Your task to perform on an android device: Open Maps and search for coffee Image 0: 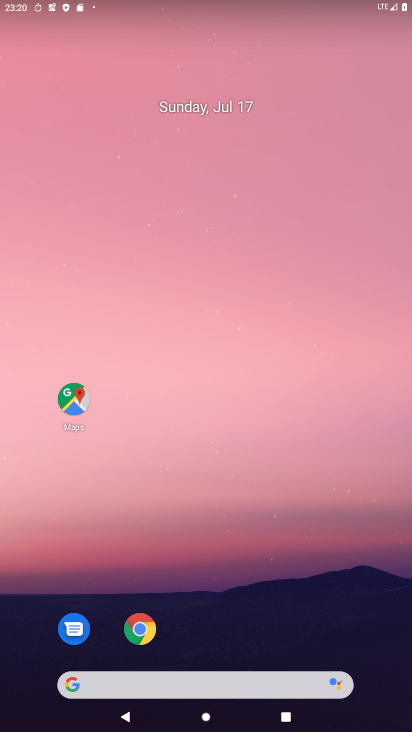
Step 0: drag from (231, 723) to (275, 219)
Your task to perform on an android device: Open Maps and search for coffee Image 1: 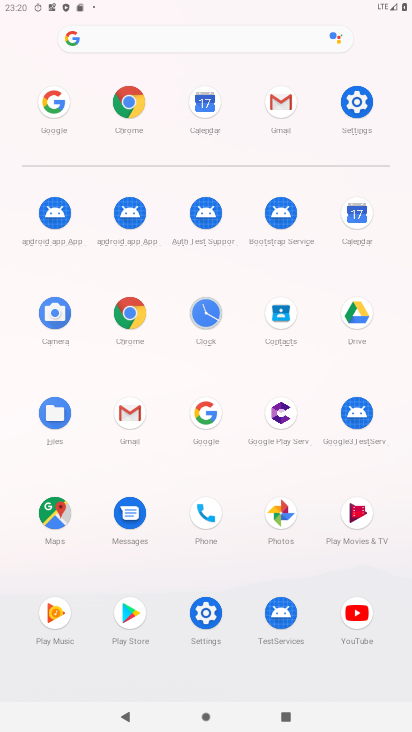
Step 1: click (57, 516)
Your task to perform on an android device: Open Maps and search for coffee Image 2: 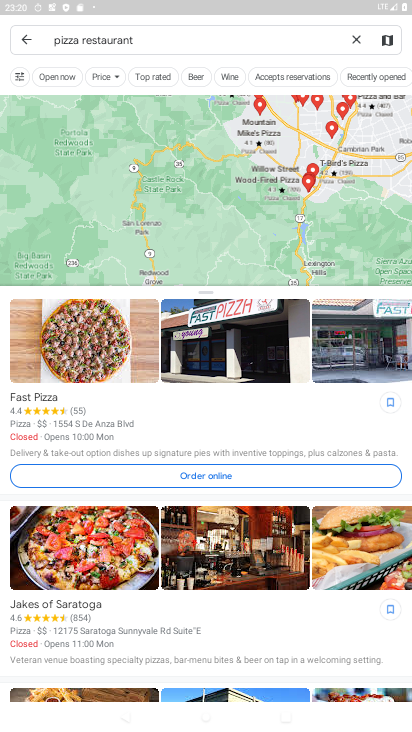
Step 2: click (355, 38)
Your task to perform on an android device: Open Maps and search for coffee Image 3: 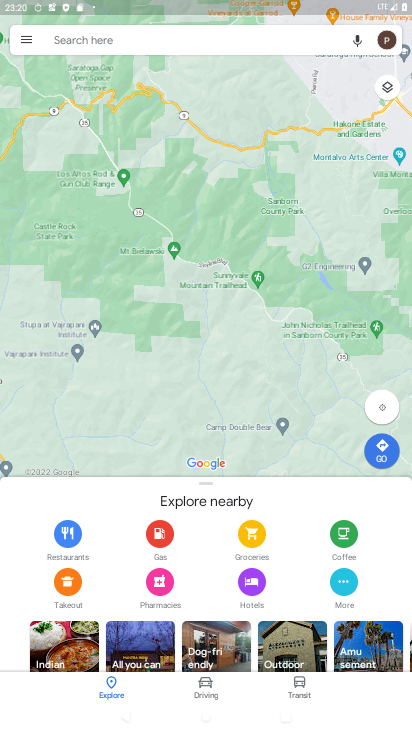
Step 3: click (146, 33)
Your task to perform on an android device: Open Maps and search for coffee Image 4: 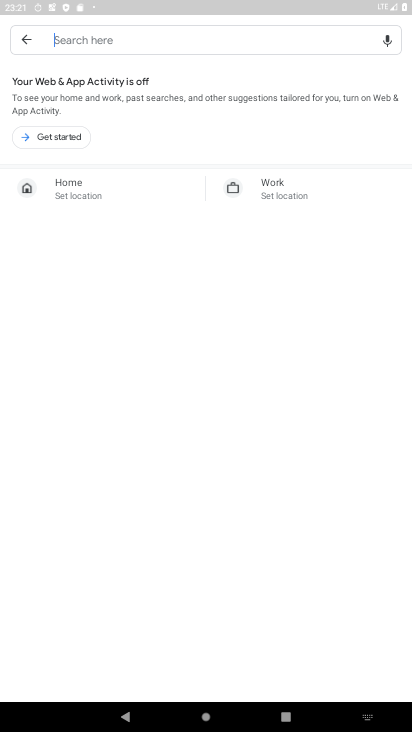
Step 4: type "coffee"
Your task to perform on an android device: Open Maps and search for coffee Image 5: 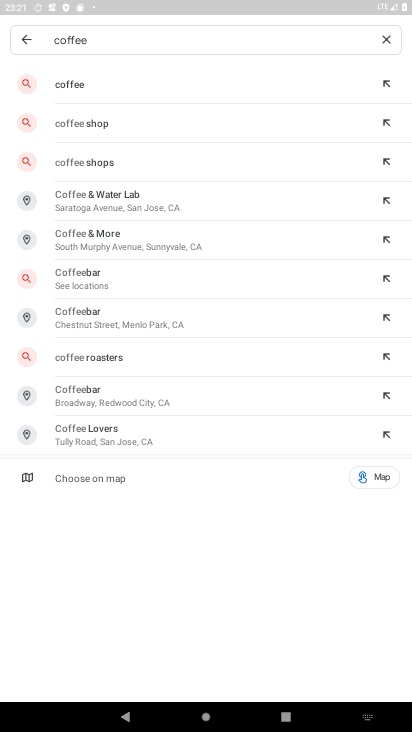
Step 5: click (65, 79)
Your task to perform on an android device: Open Maps and search for coffee Image 6: 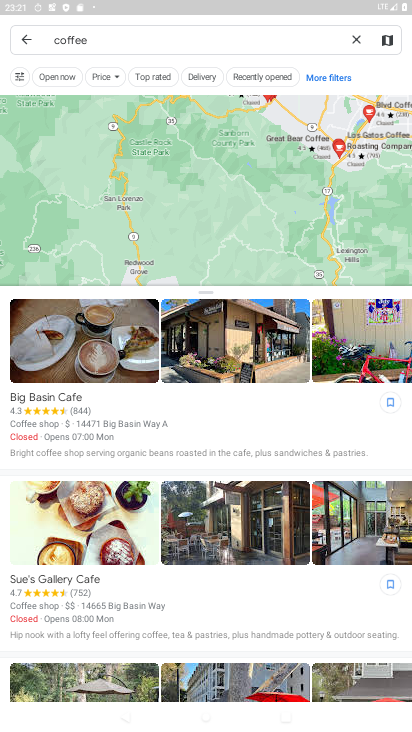
Step 6: task complete